Your task to perform on an android device: Open the Play Movies app and select the watchlist tab. Image 0: 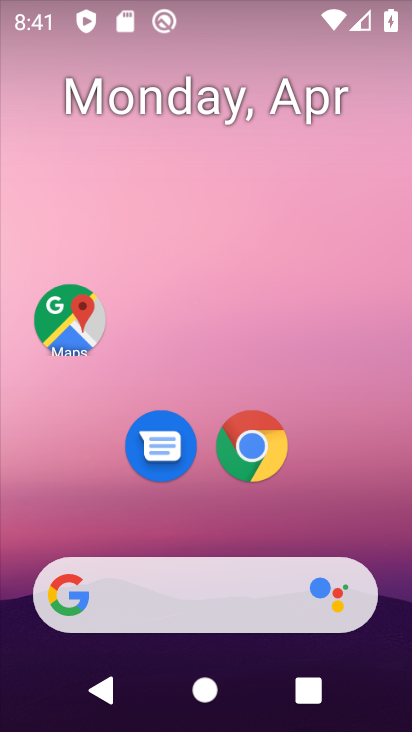
Step 0: drag from (326, 524) to (331, 93)
Your task to perform on an android device: Open the Play Movies app and select the watchlist tab. Image 1: 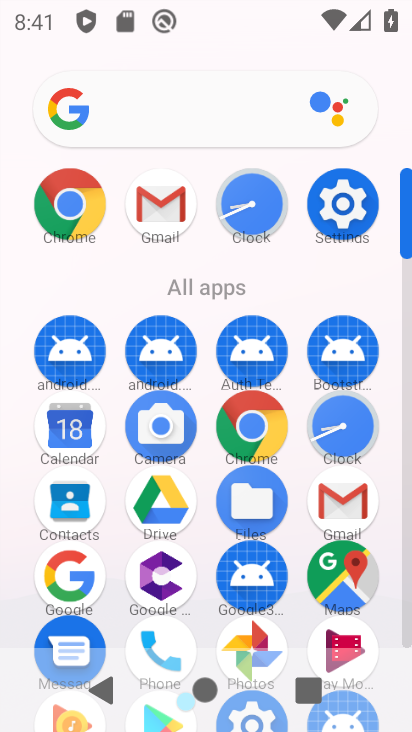
Step 1: drag from (194, 539) to (209, 295)
Your task to perform on an android device: Open the Play Movies app and select the watchlist tab. Image 2: 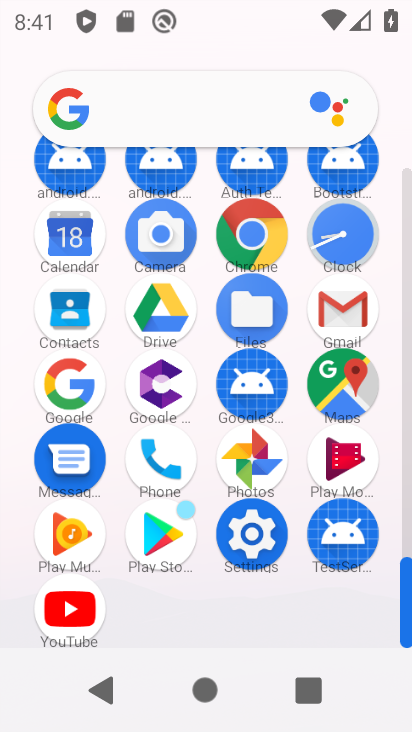
Step 2: click (352, 465)
Your task to perform on an android device: Open the Play Movies app and select the watchlist tab. Image 3: 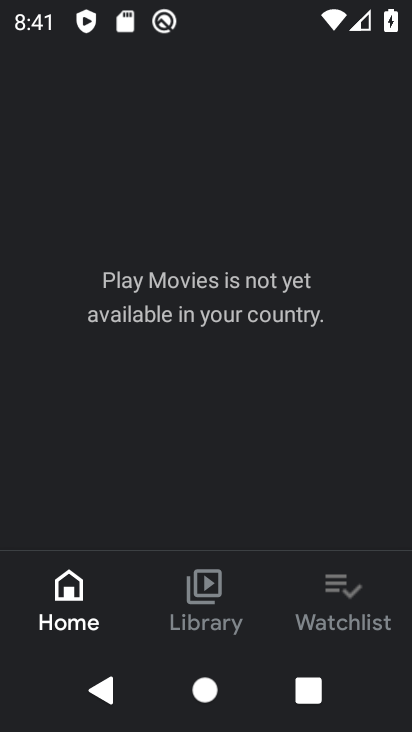
Step 3: click (341, 595)
Your task to perform on an android device: Open the Play Movies app and select the watchlist tab. Image 4: 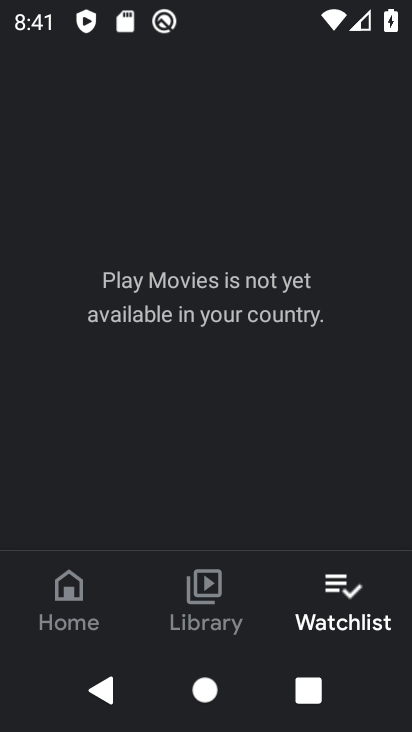
Step 4: task complete